Your task to perform on an android device: toggle translation in the chrome app Image 0: 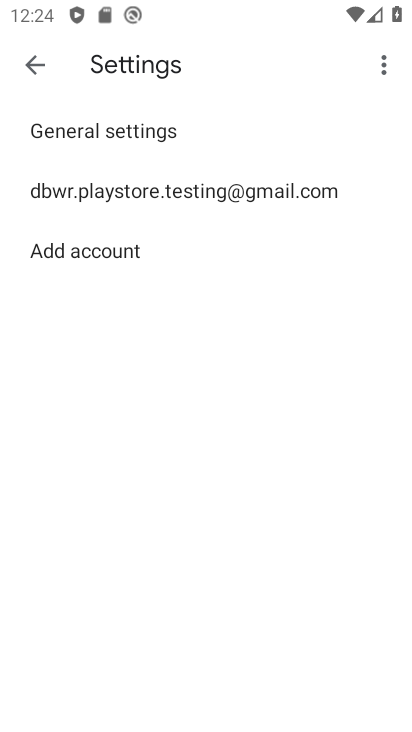
Step 0: press home button
Your task to perform on an android device: toggle translation in the chrome app Image 1: 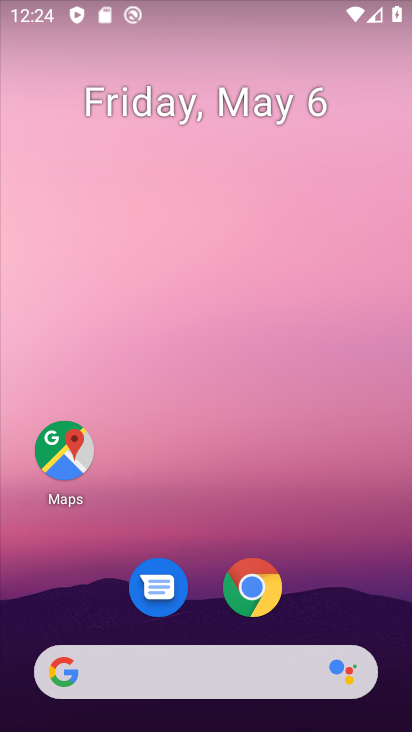
Step 1: click (245, 584)
Your task to perform on an android device: toggle translation in the chrome app Image 2: 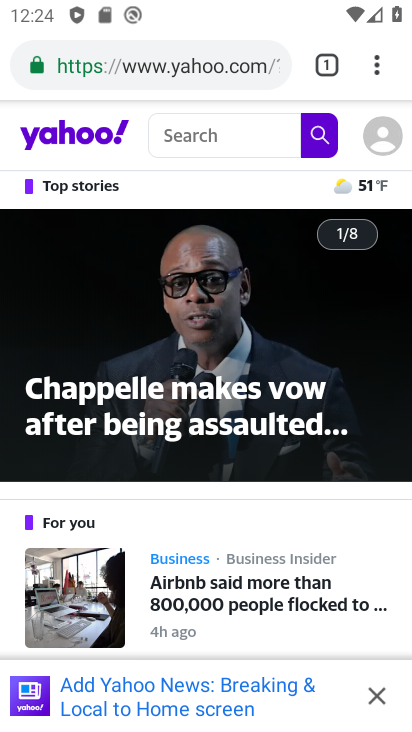
Step 2: click (374, 58)
Your task to perform on an android device: toggle translation in the chrome app Image 3: 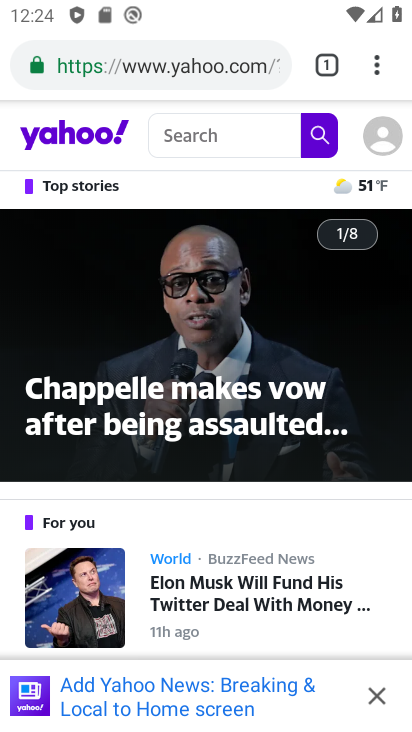
Step 3: click (376, 66)
Your task to perform on an android device: toggle translation in the chrome app Image 4: 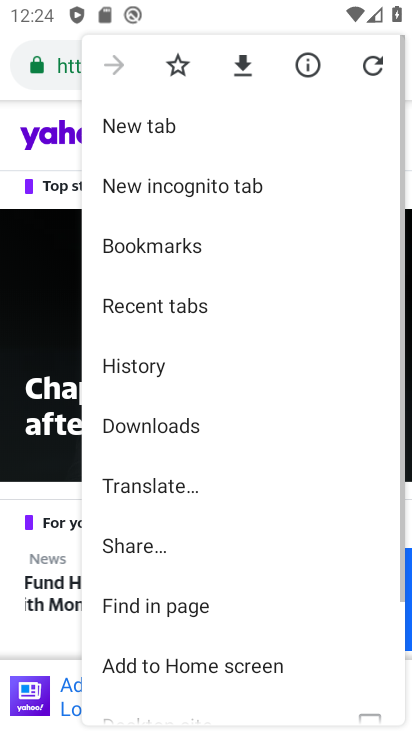
Step 4: drag from (159, 645) to (246, 342)
Your task to perform on an android device: toggle translation in the chrome app Image 5: 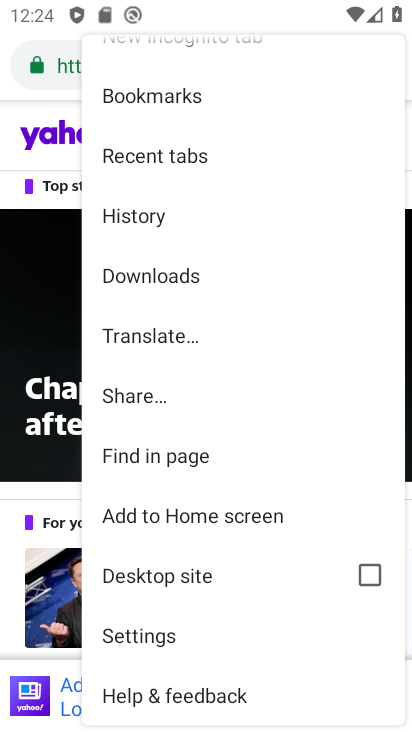
Step 5: click (136, 635)
Your task to perform on an android device: toggle translation in the chrome app Image 6: 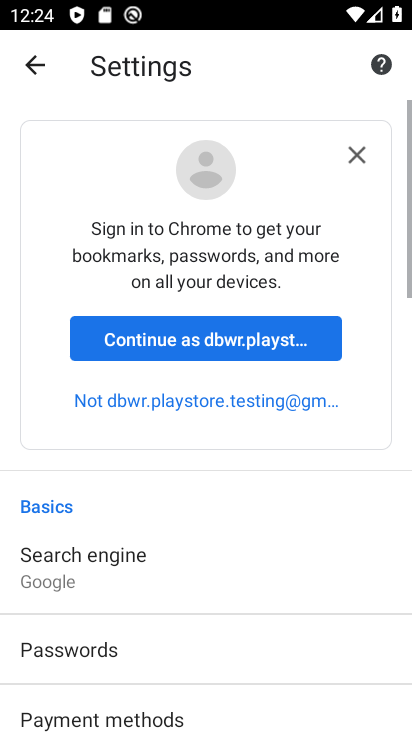
Step 6: drag from (99, 708) to (192, 290)
Your task to perform on an android device: toggle translation in the chrome app Image 7: 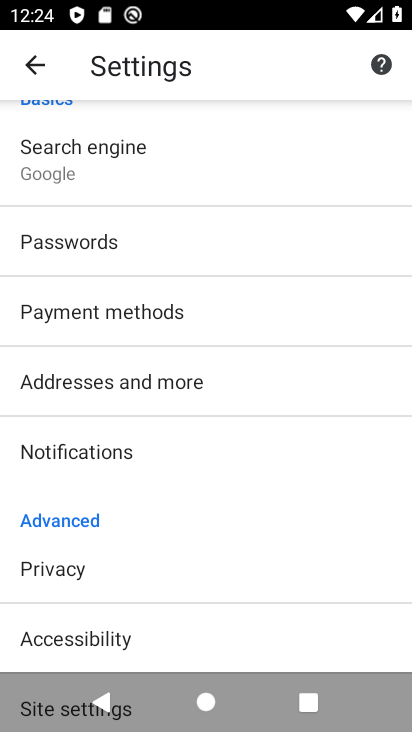
Step 7: drag from (165, 584) to (236, 201)
Your task to perform on an android device: toggle translation in the chrome app Image 8: 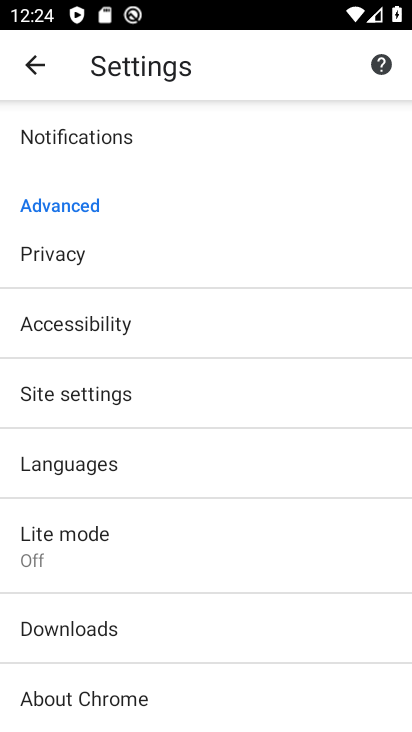
Step 8: drag from (82, 650) to (182, 307)
Your task to perform on an android device: toggle translation in the chrome app Image 9: 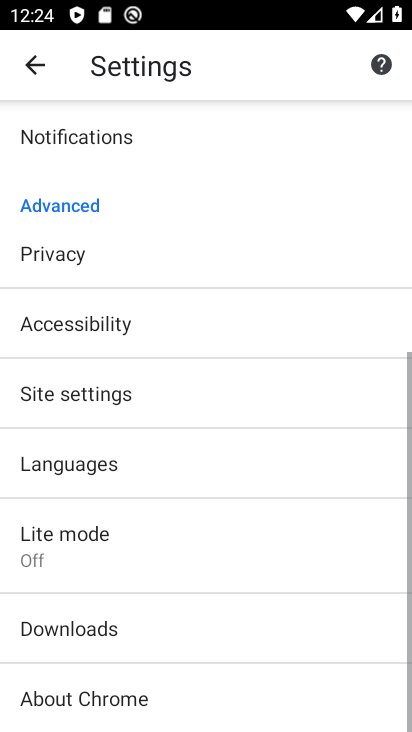
Step 9: click (136, 460)
Your task to perform on an android device: toggle translation in the chrome app Image 10: 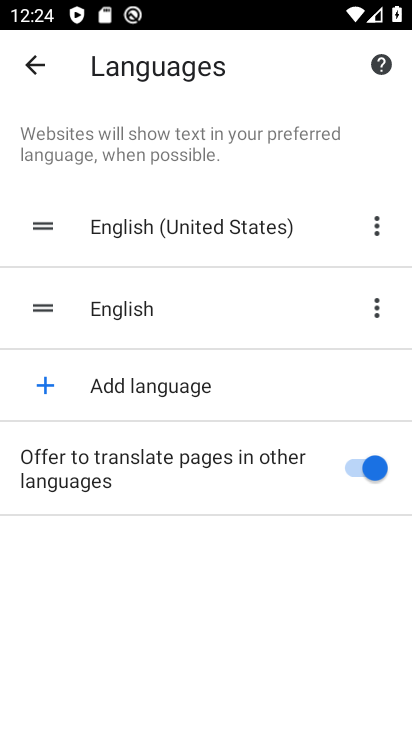
Step 10: click (385, 455)
Your task to perform on an android device: toggle translation in the chrome app Image 11: 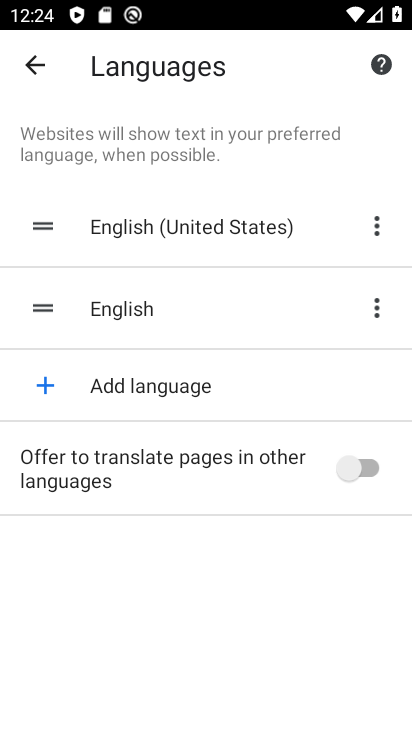
Step 11: task complete